Your task to perform on an android device: open chrome and create a bookmark for the current page Image 0: 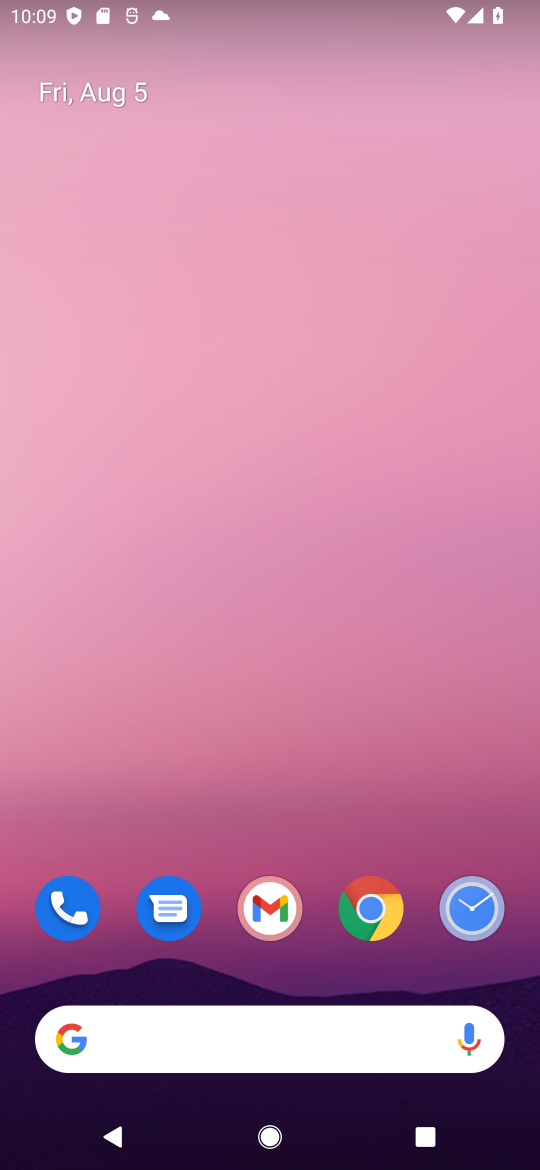
Step 0: task complete